Your task to perform on an android device: turn on the 24-hour format for clock Image 0: 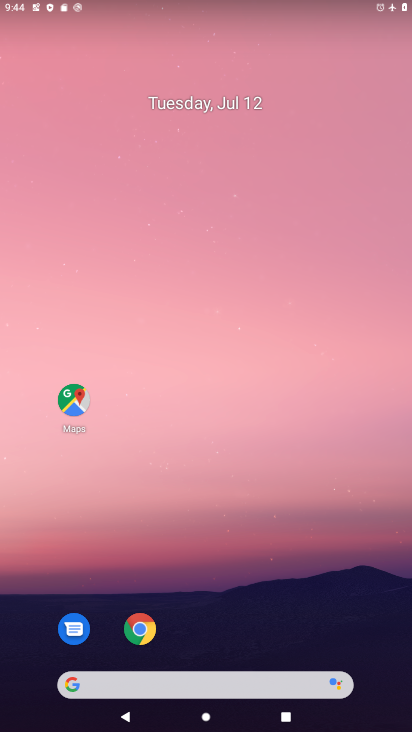
Step 0: drag from (237, 659) to (246, 475)
Your task to perform on an android device: turn on the 24-hour format for clock Image 1: 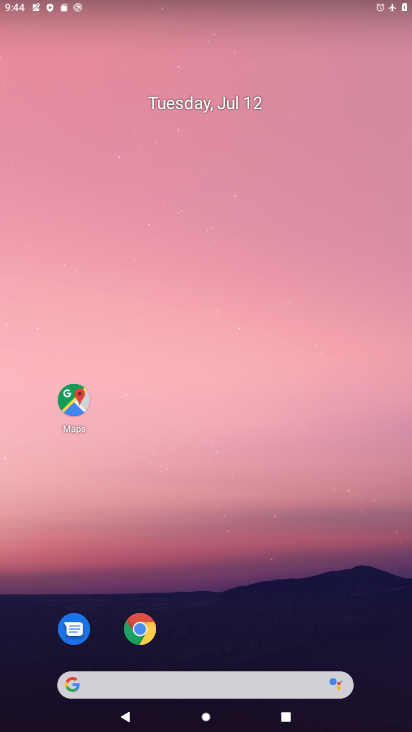
Step 1: drag from (224, 671) to (213, 184)
Your task to perform on an android device: turn on the 24-hour format for clock Image 2: 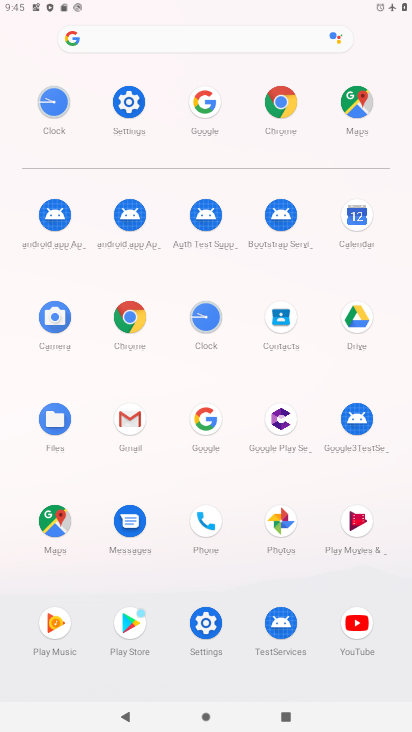
Step 2: click (207, 325)
Your task to perform on an android device: turn on the 24-hour format for clock Image 3: 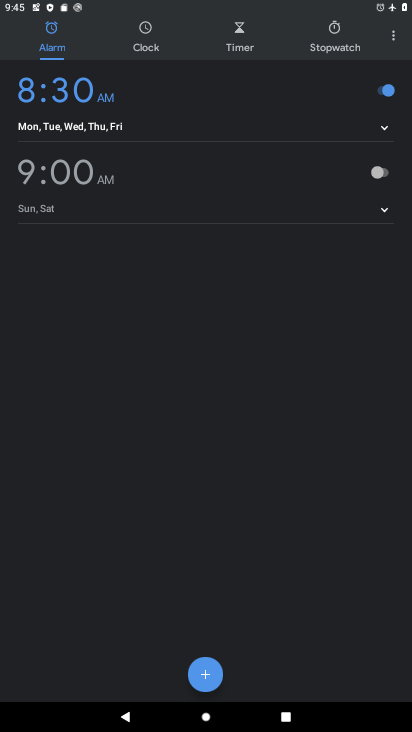
Step 3: click (393, 25)
Your task to perform on an android device: turn on the 24-hour format for clock Image 4: 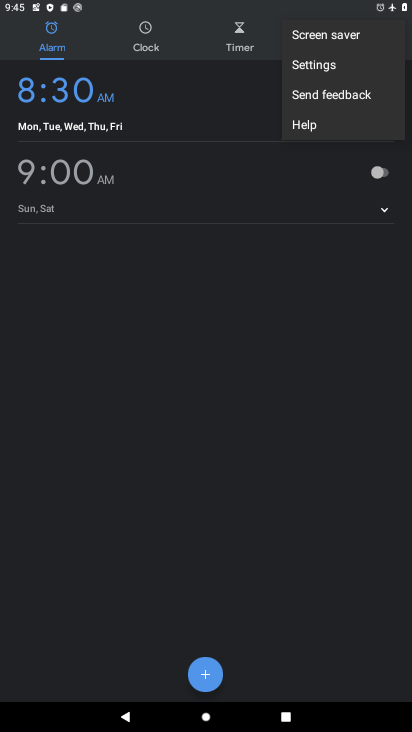
Step 4: click (333, 63)
Your task to perform on an android device: turn on the 24-hour format for clock Image 5: 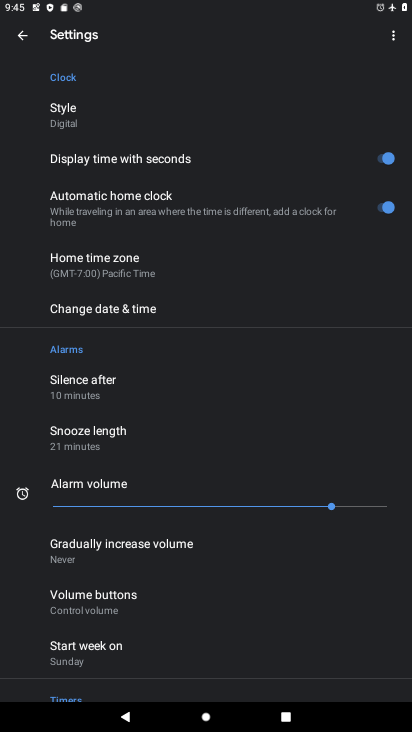
Step 5: click (139, 309)
Your task to perform on an android device: turn on the 24-hour format for clock Image 6: 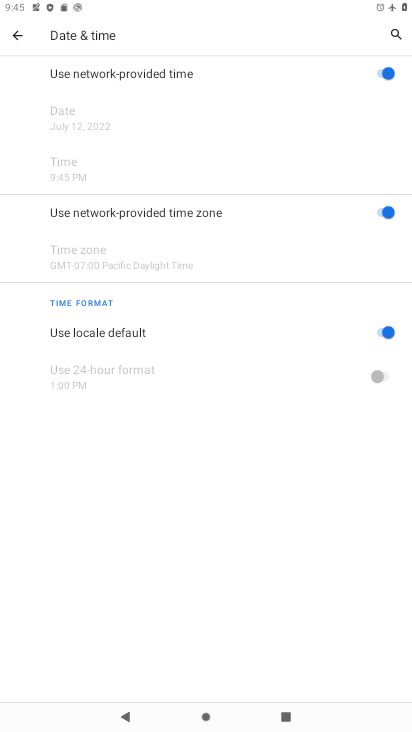
Step 6: click (381, 334)
Your task to perform on an android device: turn on the 24-hour format for clock Image 7: 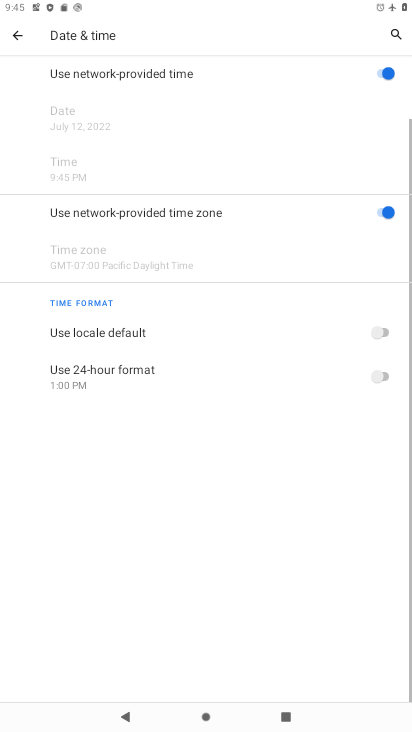
Step 7: click (381, 373)
Your task to perform on an android device: turn on the 24-hour format for clock Image 8: 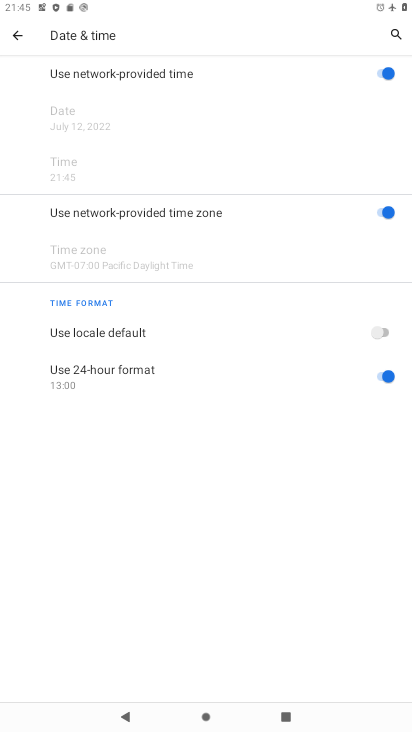
Step 8: task complete